Your task to perform on an android device: find which apps use the phone's location Image 0: 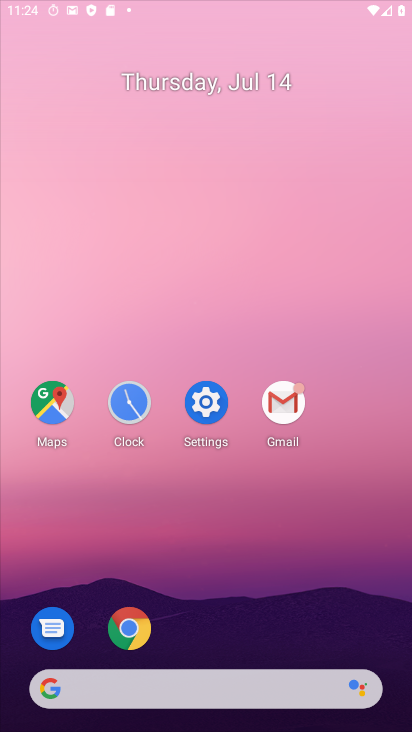
Step 0: click (134, 623)
Your task to perform on an android device: find which apps use the phone's location Image 1: 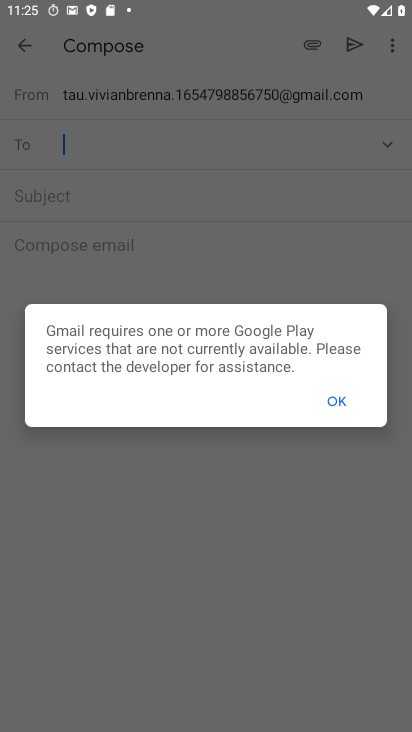
Step 1: press home button
Your task to perform on an android device: find which apps use the phone's location Image 2: 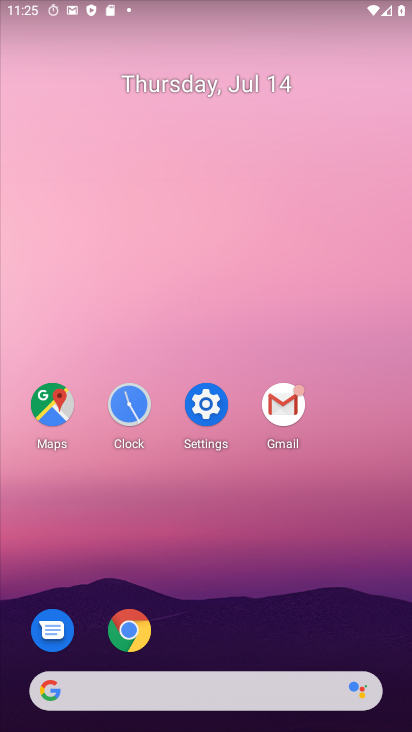
Step 2: click (209, 396)
Your task to perform on an android device: find which apps use the phone's location Image 3: 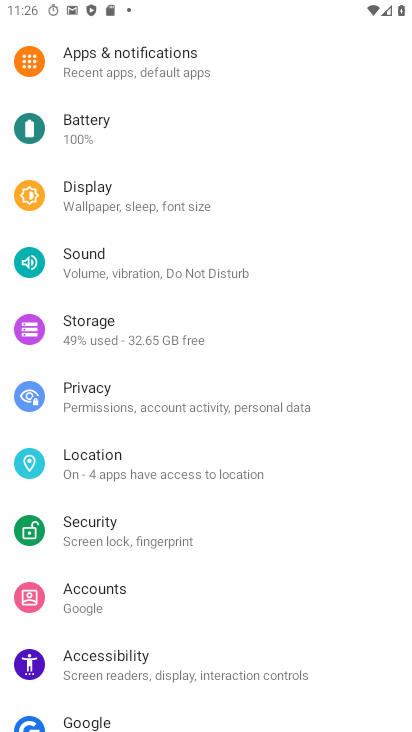
Step 3: click (75, 467)
Your task to perform on an android device: find which apps use the phone's location Image 4: 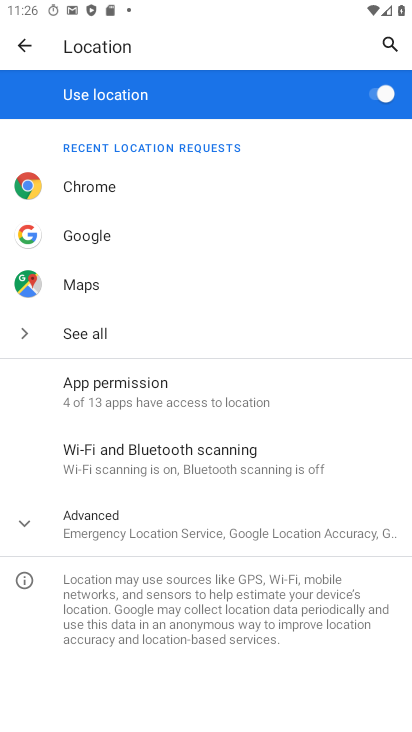
Step 4: click (22, 520)
Your task to perform on an android device: find which apps use the phone's location Image 5: 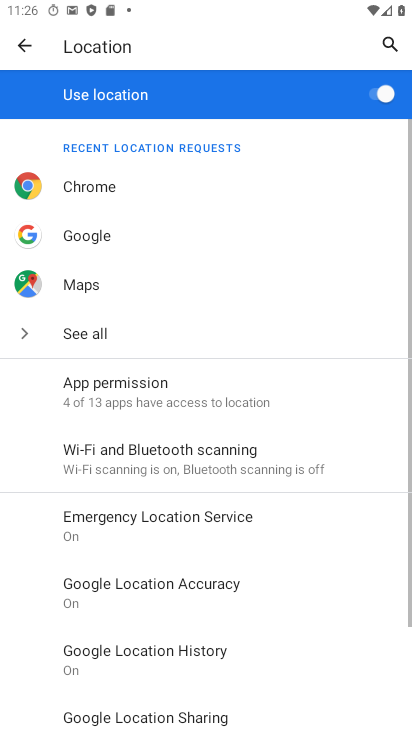
Step 5: click (80, 389)
Your task to perform on an android device: find which apps use the phone's location Image 6: 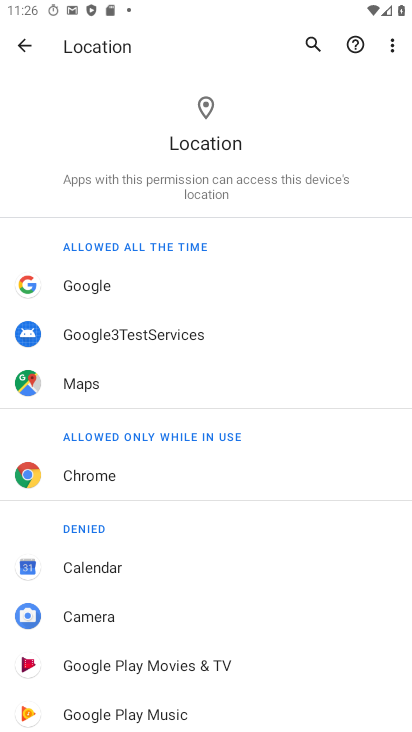
Step 6: task complete